Your task to perform on an android device: turn pop-ups on in chrome Image 0: 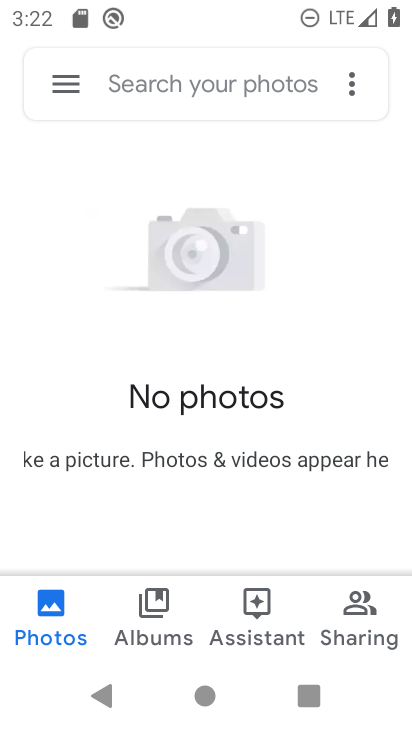
Step 0: press back button
Your task to perform on an android device: turn pop-ups on in chrome Image 1: 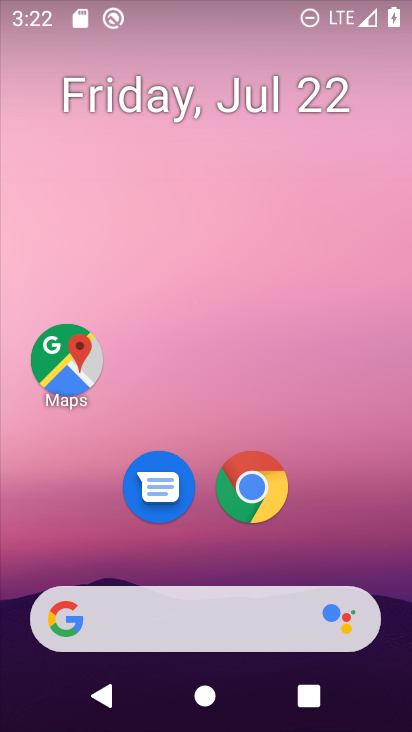
Step 1: click (259, 489)
Your task to perform on an android device: turn pop-ups on in chrome Image 2: 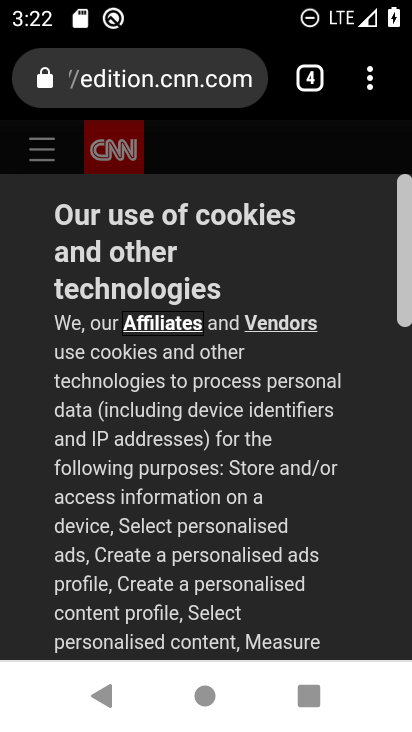
Step 2: drag from (365, 70) to (99, 561)
Your task to perform on an android device: turn pop-ups on in chrome Image 3: 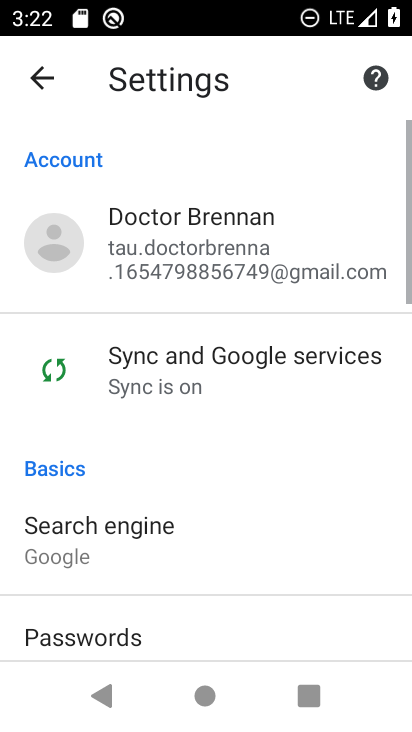
Step 3: drag from (223, 591) to (299, 22)
Your task to perform on an android device: turn pop-ups on in chrome Image 4: 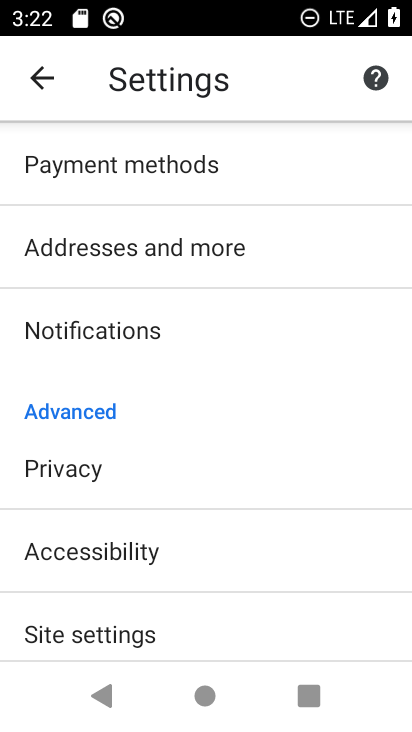
Step 4: click (102, 625)
Your task to perform on an android device: turn pop-ups on in chrome Image 5: 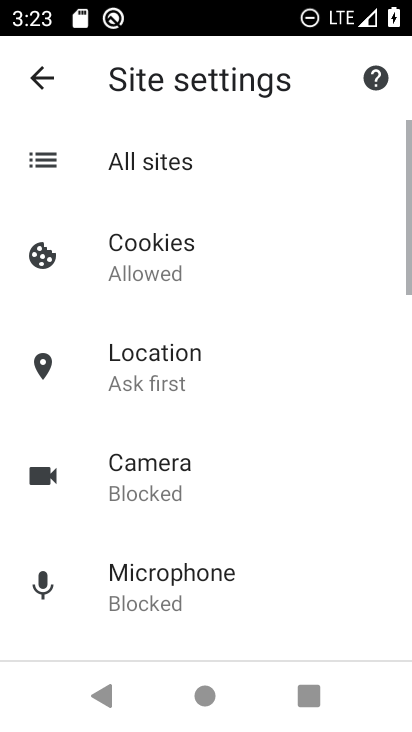
Step 5: drag from (166, 568) to (263, 24)
Your task to perform on an android device: turn pop-ups on in chrome Image 6: 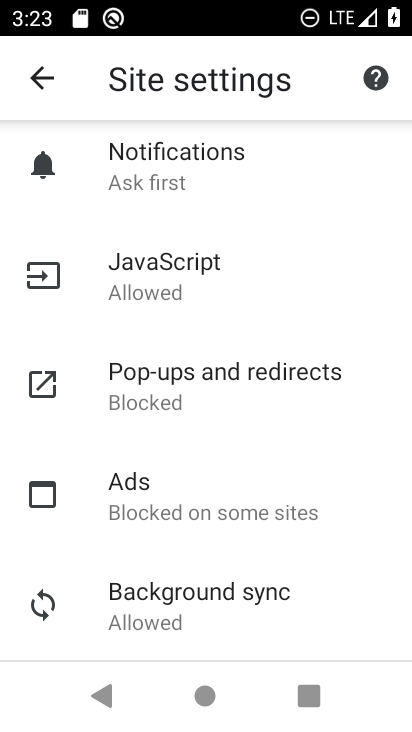
Step 6: click (216, 379)
Your task to perform on an android device: turn pop-ups on in chrome Image 7: 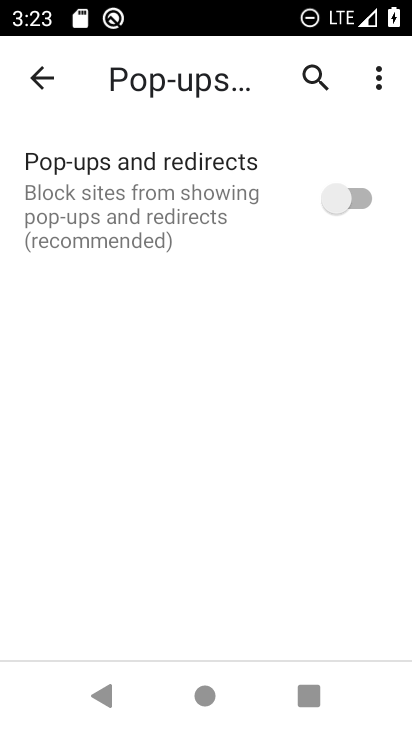
Step 7: click (330, 205)
Your task to perform on an android device: turn pop-ups on in chrome Image 8: 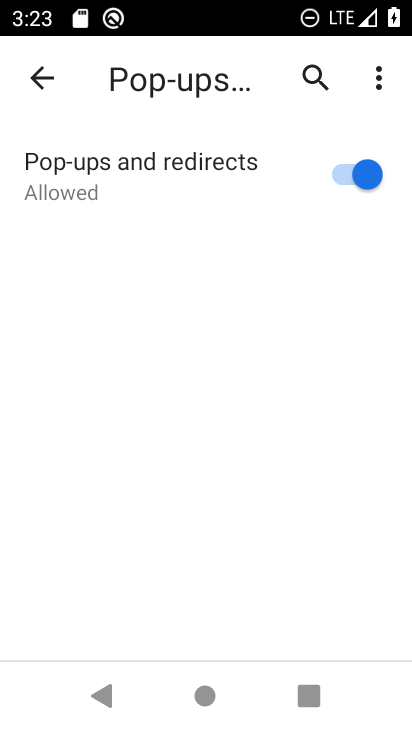
Step 8: task complete